Your task to perform on an android device: Show the shopping cart on walmart.com. Add razer blade to the cart on walmart.com Image 0: 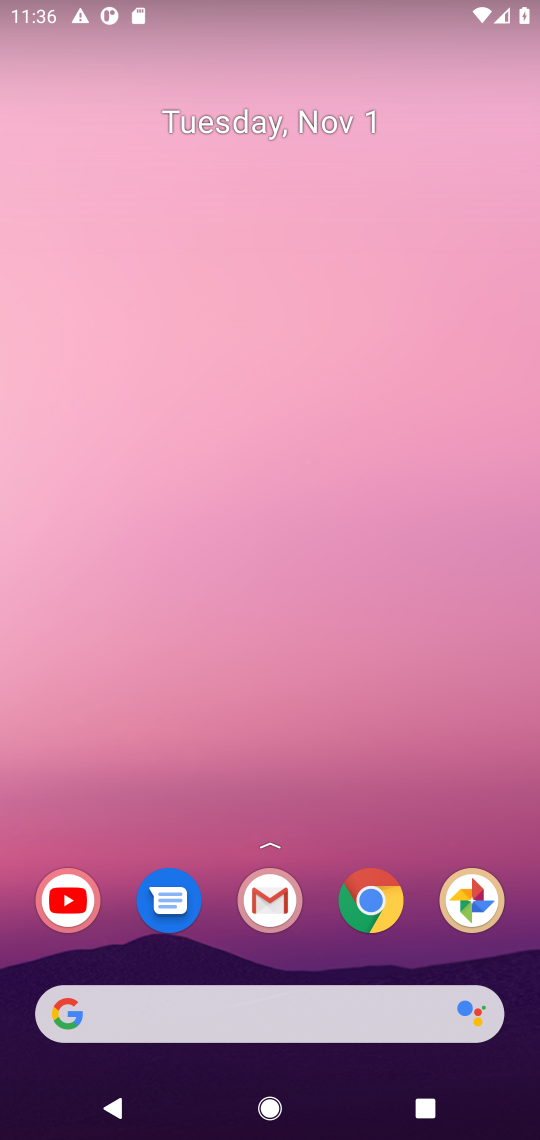
Step 0: click (392, 898)
Your task to perform on an android device: Show the shopping cart on walmart.com. Add razer blade to the cart on walmart.com Image 1: 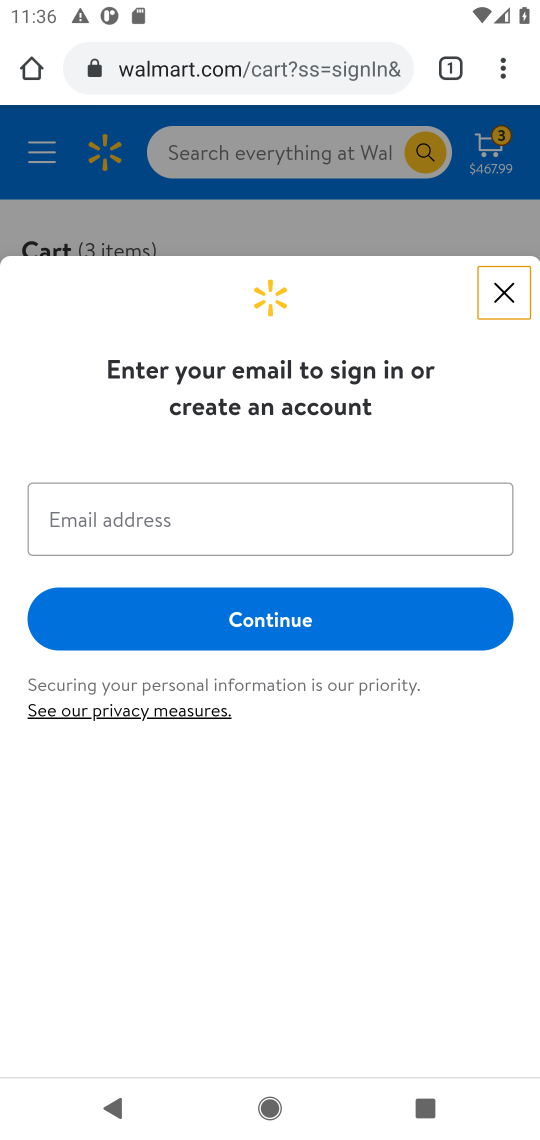
Step 1: click (513, 300)
Your task to perform on an android device: Show the shopping cart on walmart.com. Add razer blade to the cart on walmart.com Image 2: 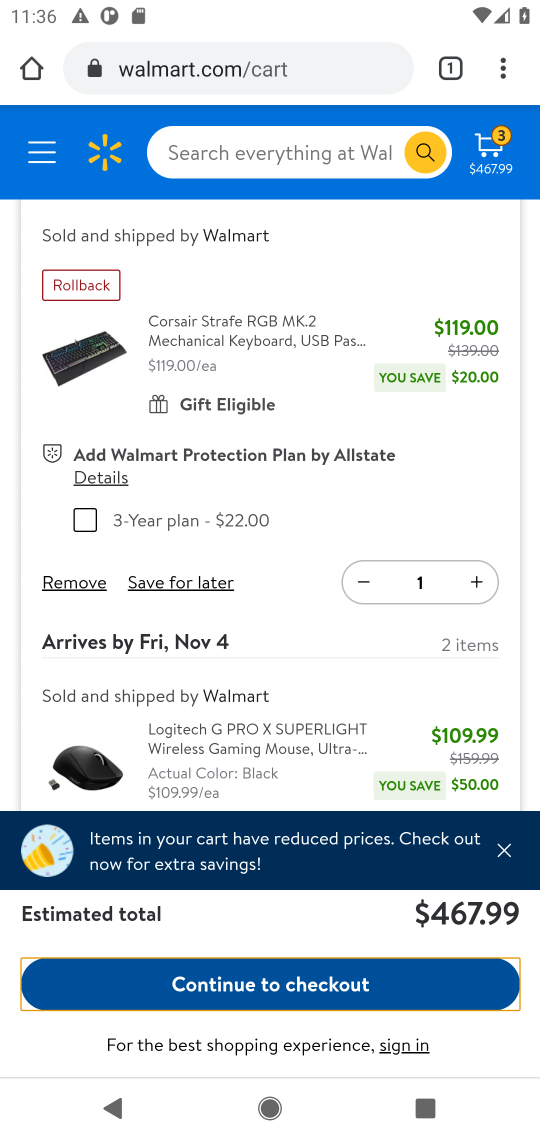
Step 2: click (190, 166)
Your task to perform on an android device: Show the shopping cart on walmart.com. Add razer blade to the cart on walmart.com Image 3: 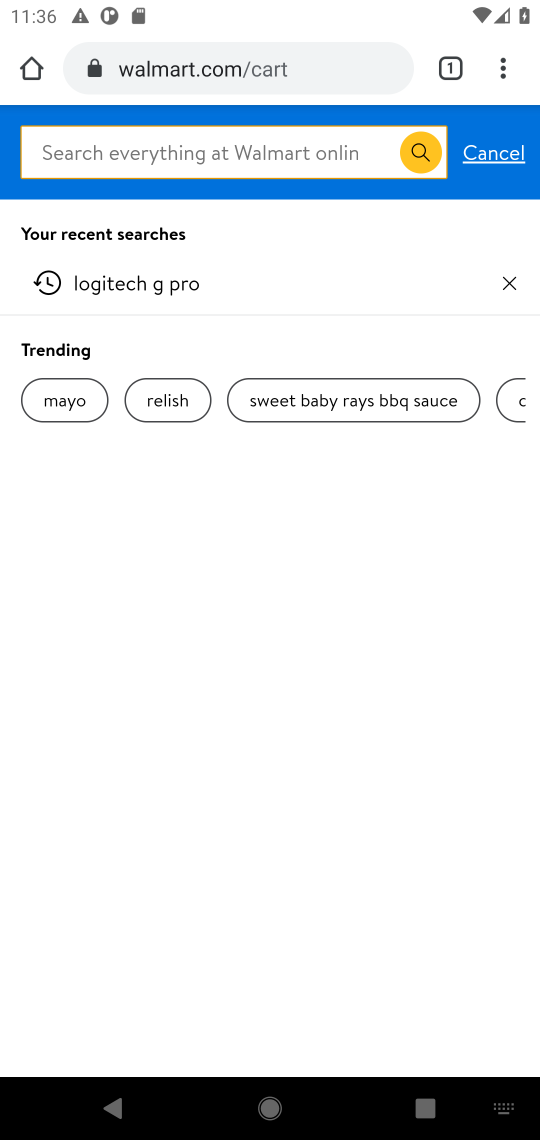
Step 3: type "razer blade"
Your task to perform on an android device: Show the shopping cart on walmart.com. Add razer blade to the cart on walmart.com Image 4: 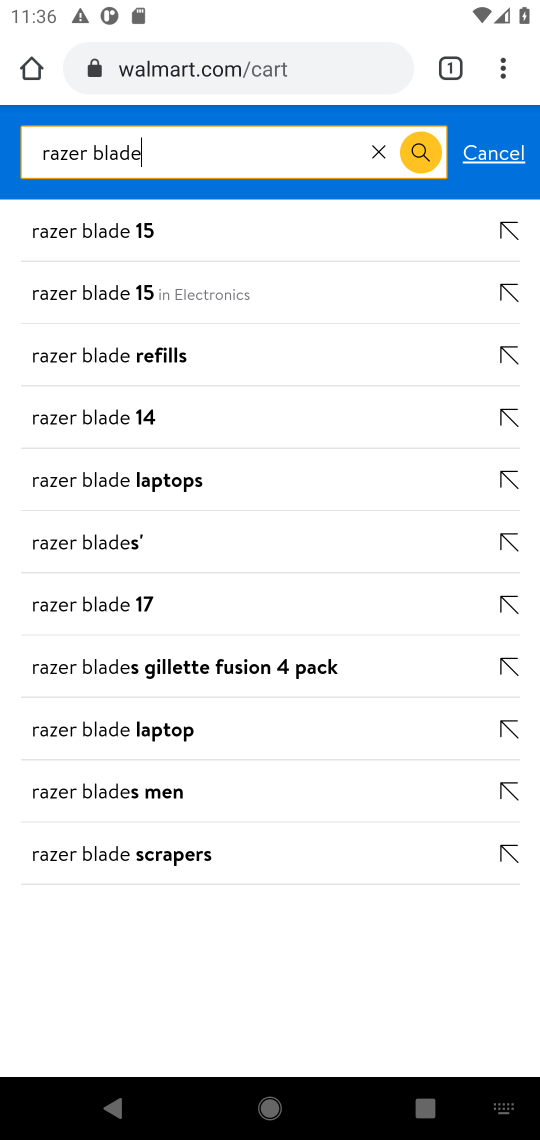
Step 4: click (427, 151)
Your task to perform on an android device: Show the shopping cart on walmart.com. Add razer blade to the cart on walmart.com Image 5: 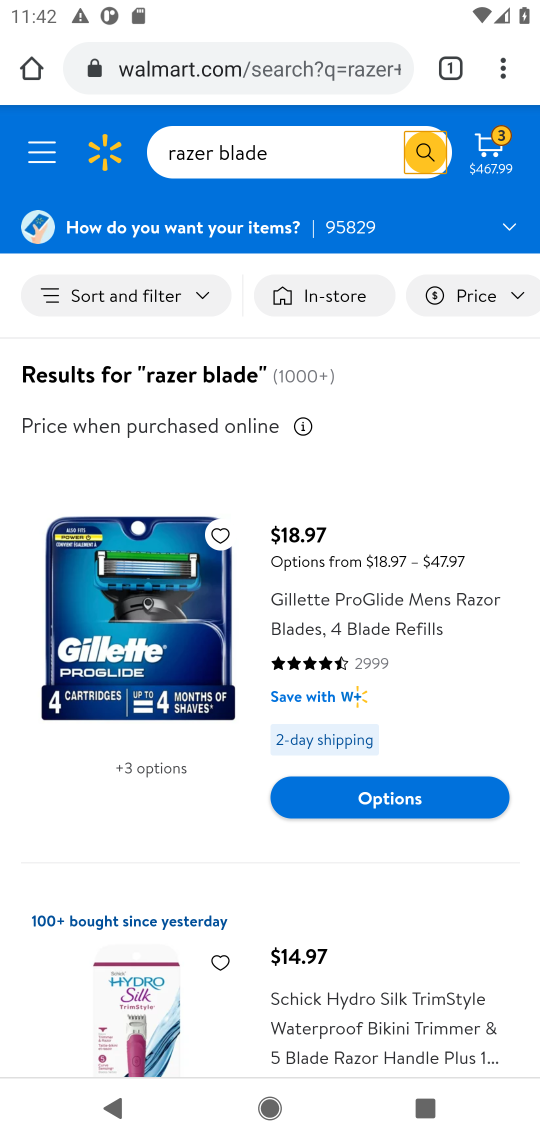
Step 5: task complete